Your task to perform on an android device: What's on my calendar tomorrow? Image 0: 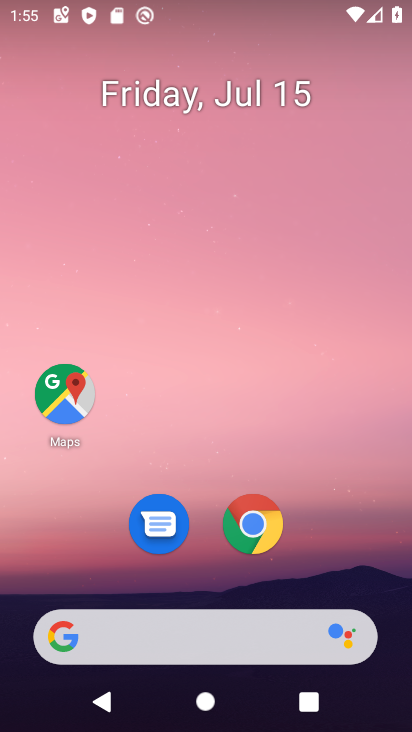
Step 0: drag from (187, 577) to (285, 80)
Your task to perform on an android device: What's on my calendar tomorrow? Image 1: 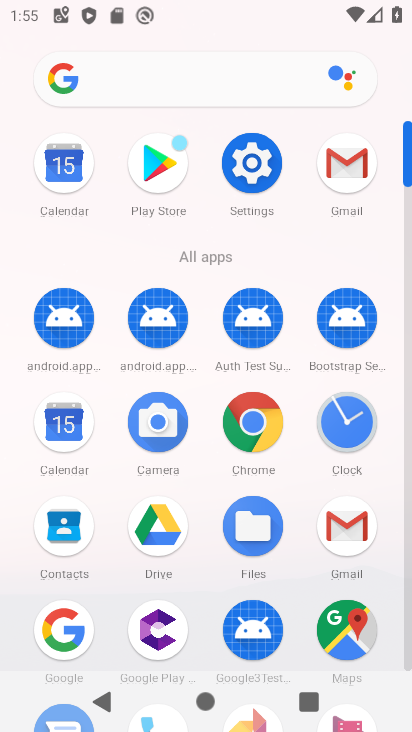
Step 1: click (52, 415)
Your task to perform on an android device: What's on my calendar tomorrow? Image 2: 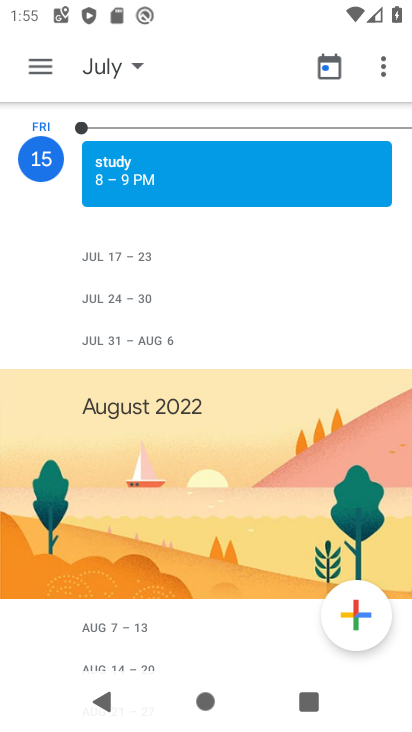
Step 2: click (117, 68)
Your task to perform on an android device: What's on my calendar tomorrow? Image 3: 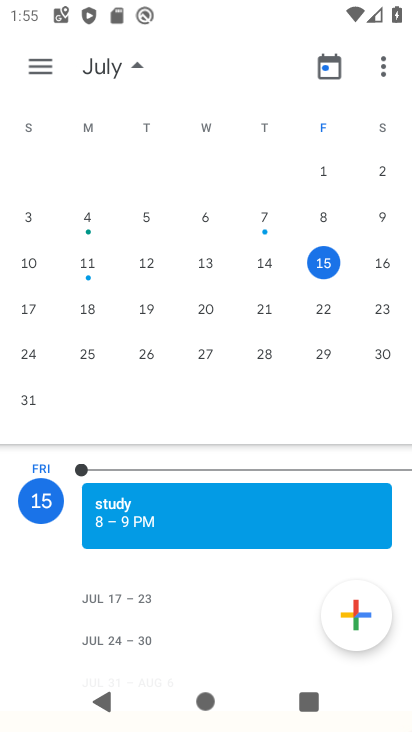
Step 3: click (387, 265)
Your task to perform on an android device: What's on my calendar tomorrow? Image 4: 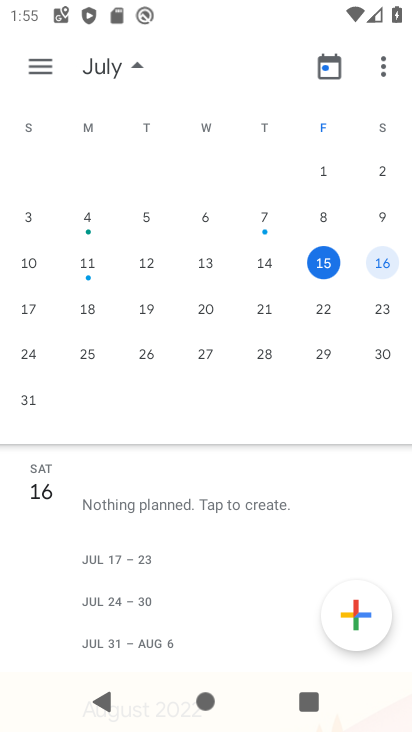
Step 4: click (44, 65)
Your task to perform on an android device: What's on my calendar tomorrow? Image 5: 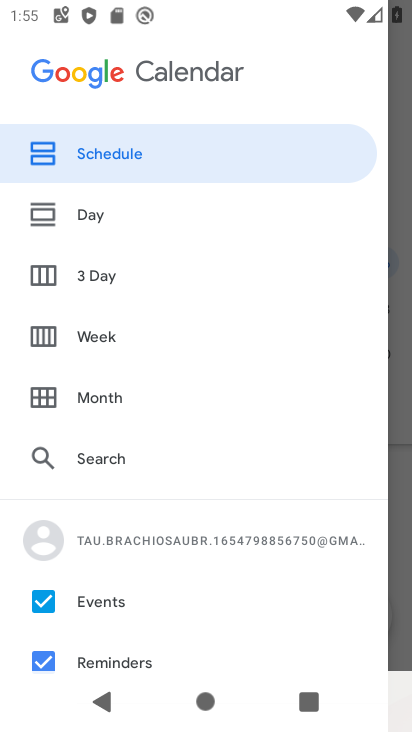
Step 5: click (105, 204)
Your task to perform on an android device: What's on my calendar tomorrow? Image 6: 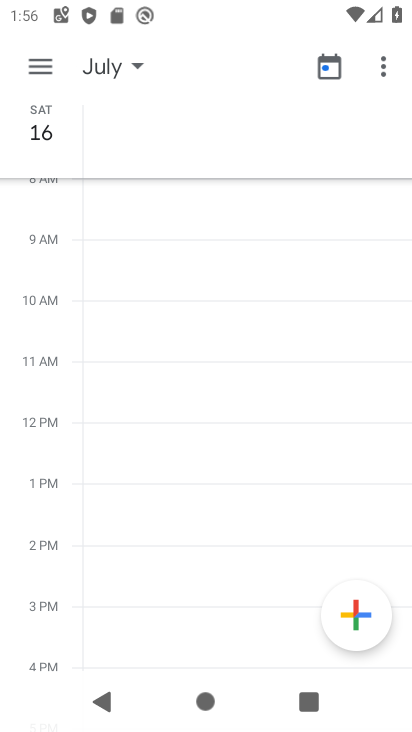
Step 6: click (46, 64)
Your task to perform on an android device: What's on my calendar tomorrow? Image 7: 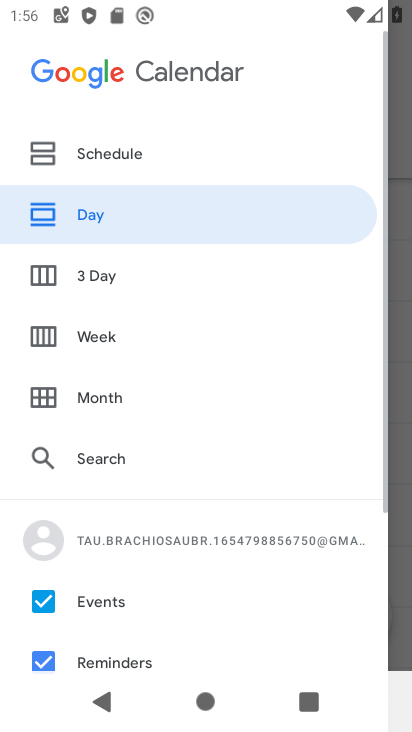
Step 7: click (138, 155)
Your task to perform on an android device: What's on my calendar tomorrow? Image 8: 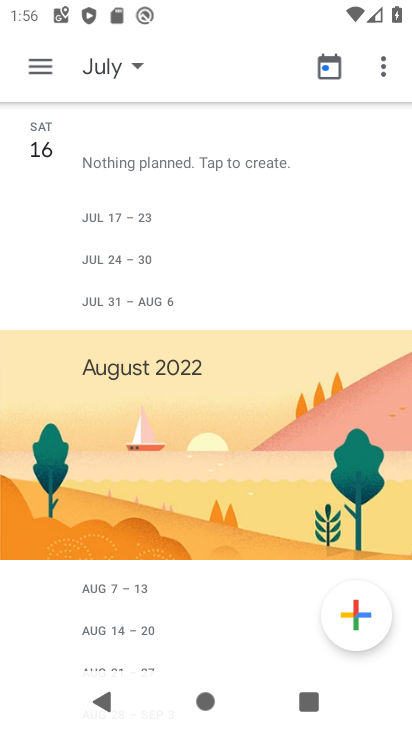
Step 8: task complete